Your task to perform on an android device: Set the phone to "Do not disturb". Image 0: 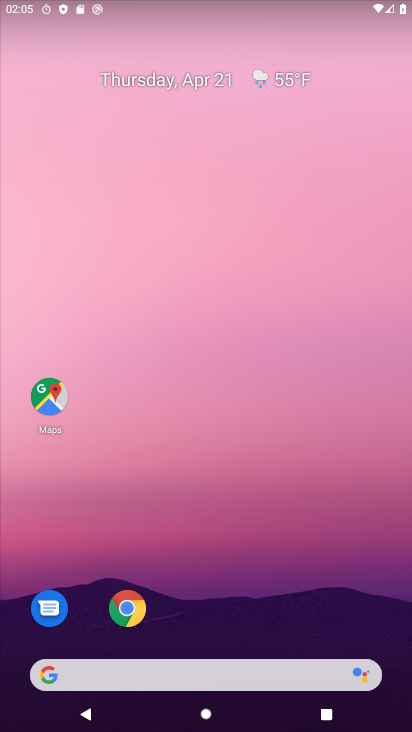
Step 0: press home button
Your task to perform on an android device: Set the phone to "Do not disturb". Image 1: 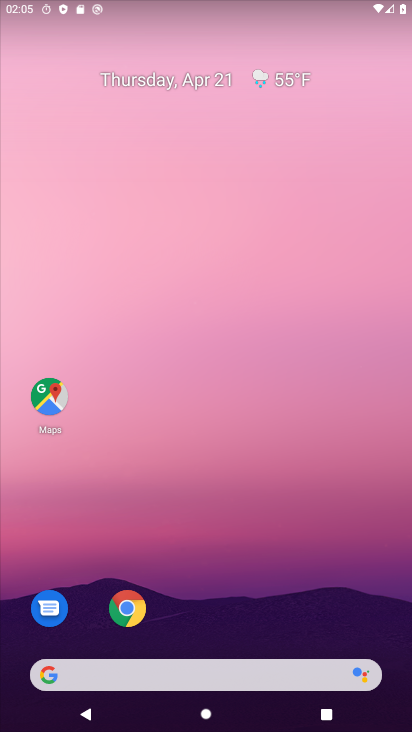
Step 1: drag from (212, 494) to (91, 33)
Your task to perform on an android device: Set the phone to "Do not disturb". Image 2: 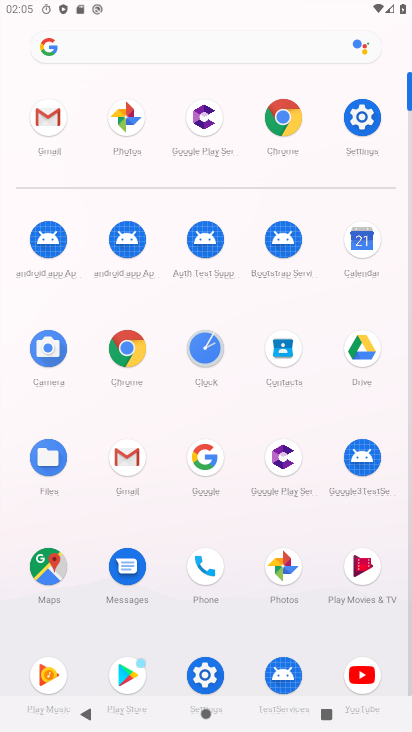
Step 2: click (358, 129)
Your task to perform on an android device: Set the phone to "Do not disturb". Image 3: 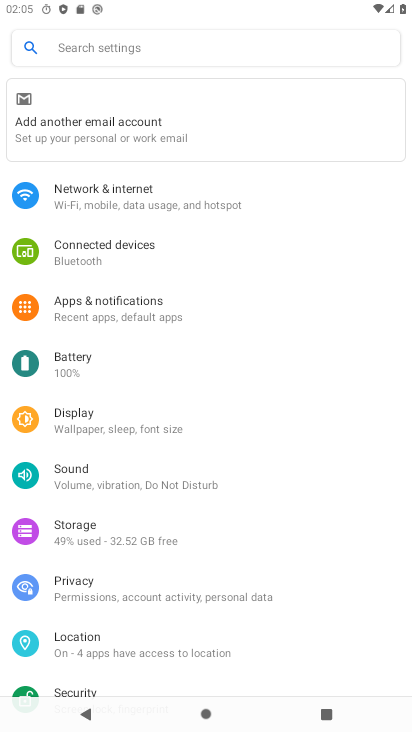
Step 3: click (117, 486)
Your task to perform on an android device: Set the phone to "Do not disturb". Image 4: 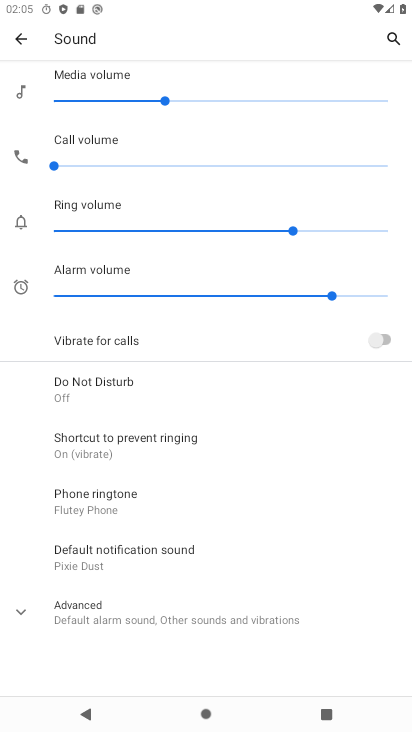
Step 4: click (70, 388)
Your task to perform on an android device: Set the phone to "Do not disturb". Image 5: 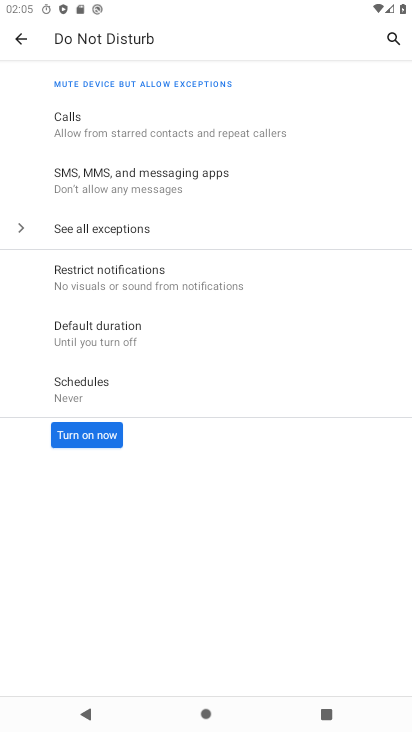
Step 5: click (98, 440)
Your task to perform on an android device: Set the phone to "Do not disturb". Image 6: 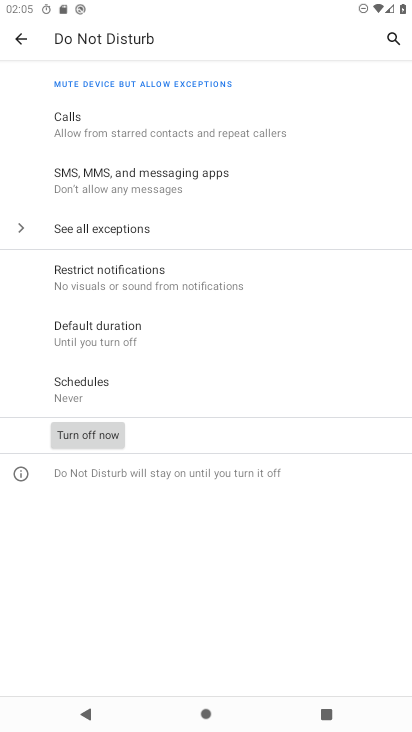
Step 6: task complete